Your task to perform on an android device: toggle javascript in the chrome app Image 0: 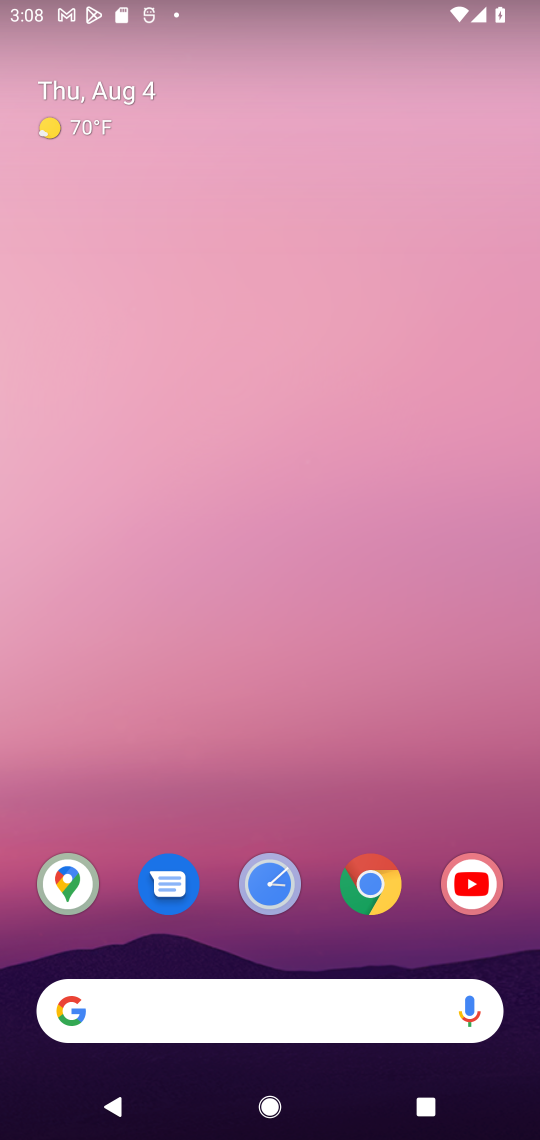
Step 0: click (360, 877)
Your task to perform on an android device: toggle javascript in the chrome app Image 1: 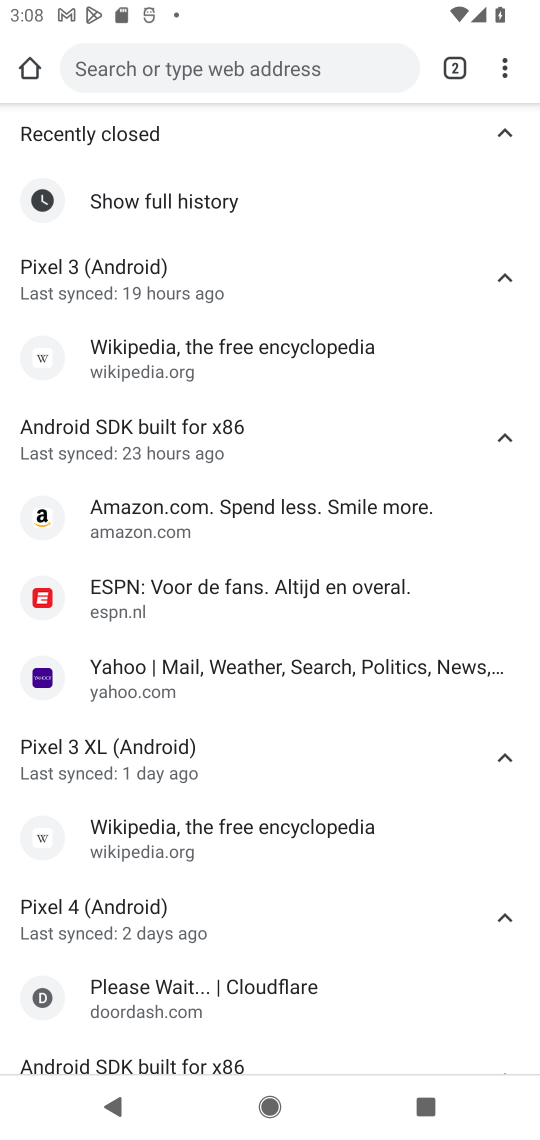
Step 1: click (499, 74)
Your task to perform on an android device: toggle javascript in the chrome app Image 2: 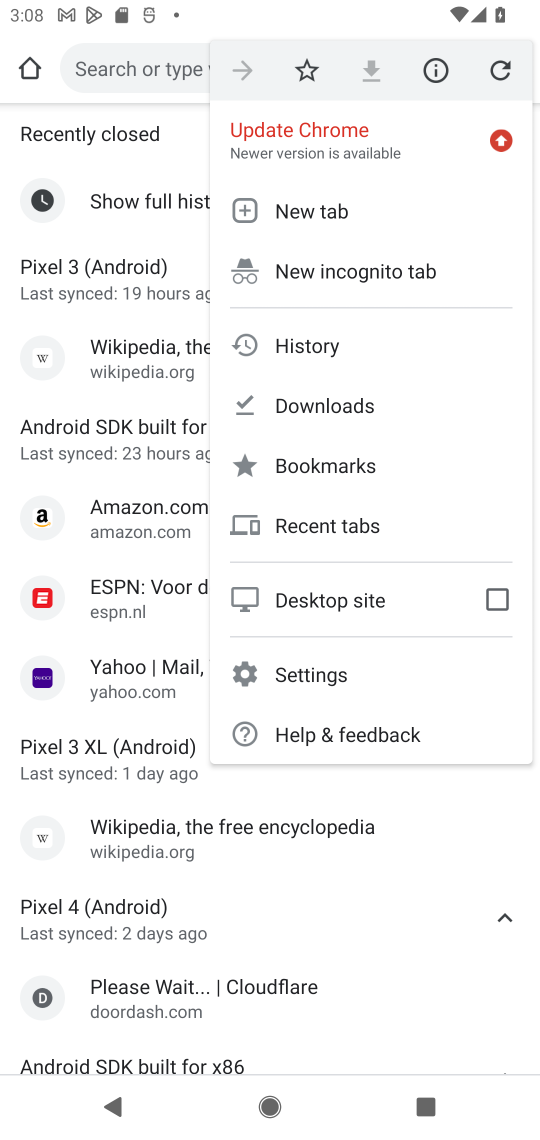
Step 2: click (316, 664)
Your task to perform on an android device: toggle javascript in the chrome app Image 3: 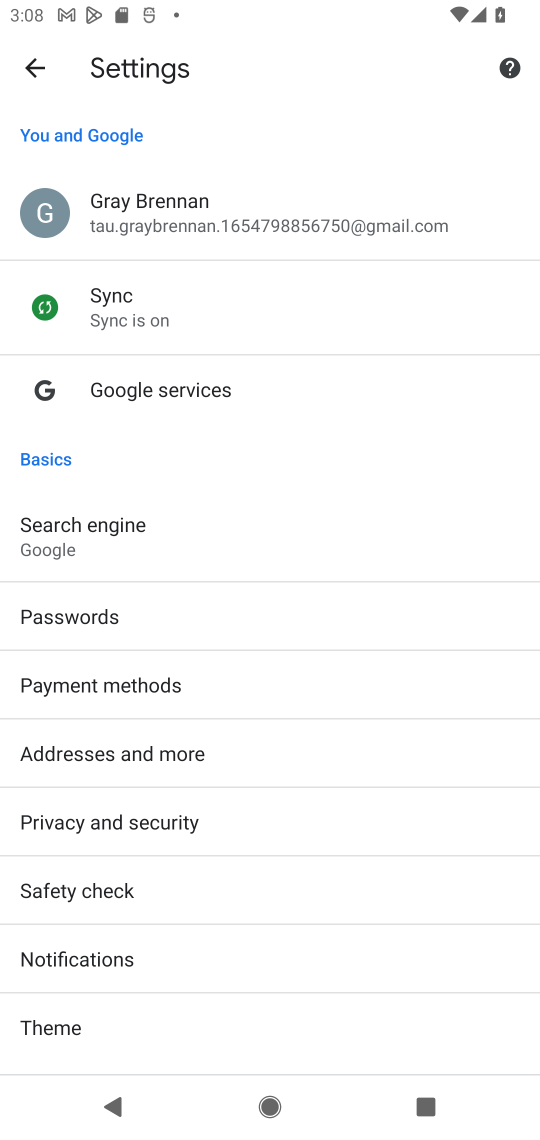
Step 3: drag from (163, 991) to (151, 406)
Your task to perform on an android device: toggle javascript in the chrome app Image 4: 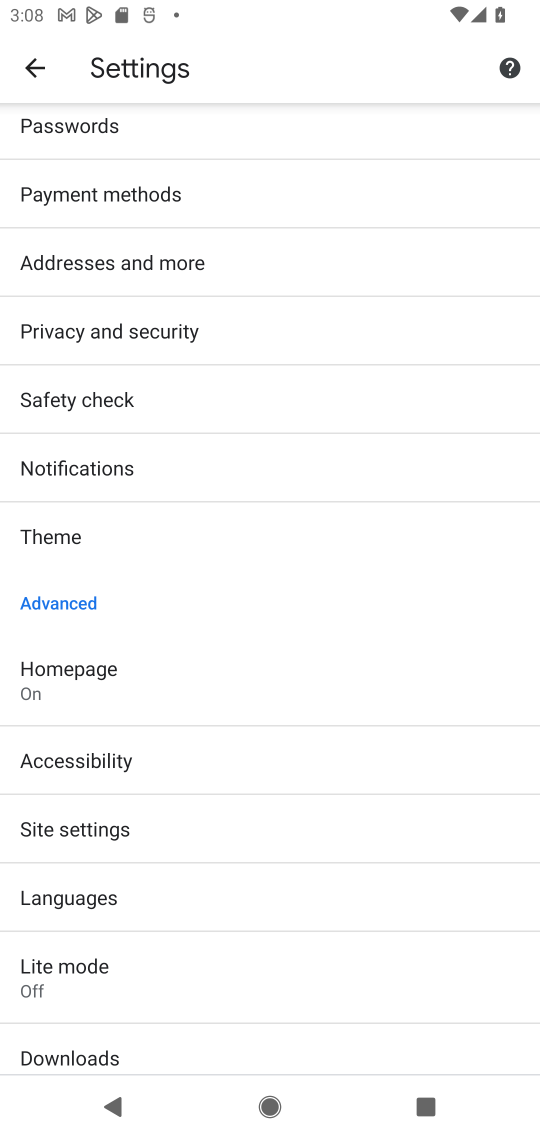
Step 4: click (106, 842)
Your task to perform on an android device: toggle javascript in the chrome app Image 5: 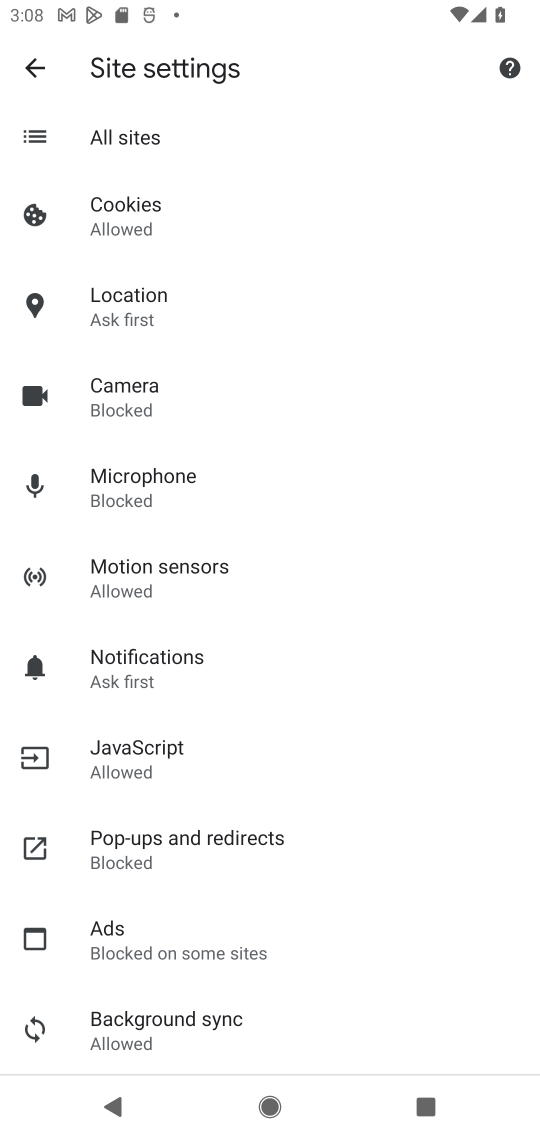
Step 5: click (104, 754)
Your task to perform on an android device: toggle javascript in the chrome app Image 6: 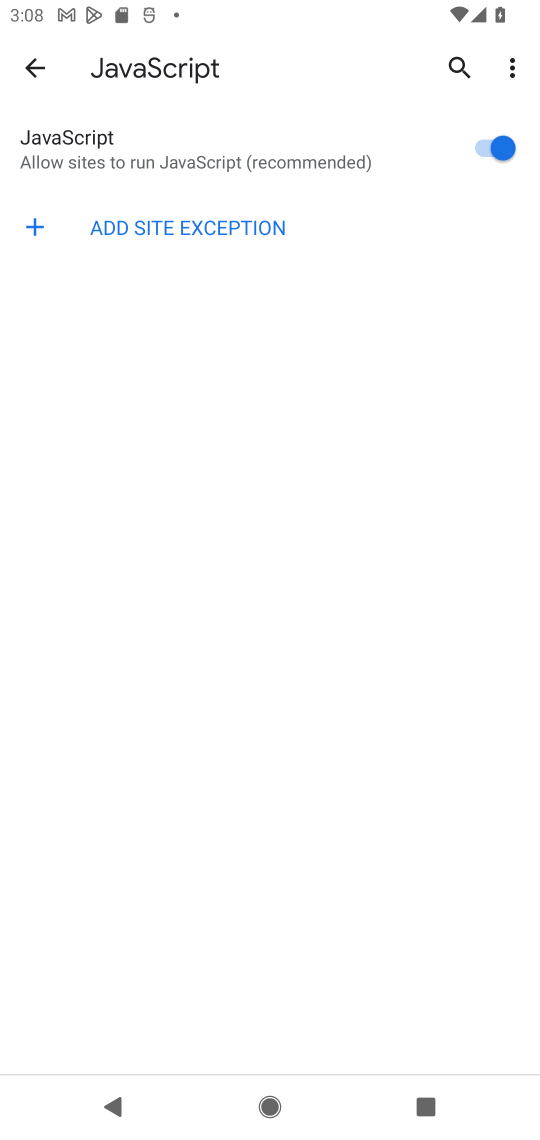
Step 6: click (474, 141)
Your task to perform on an android device: toggle javascript in the chrome app Image 7: 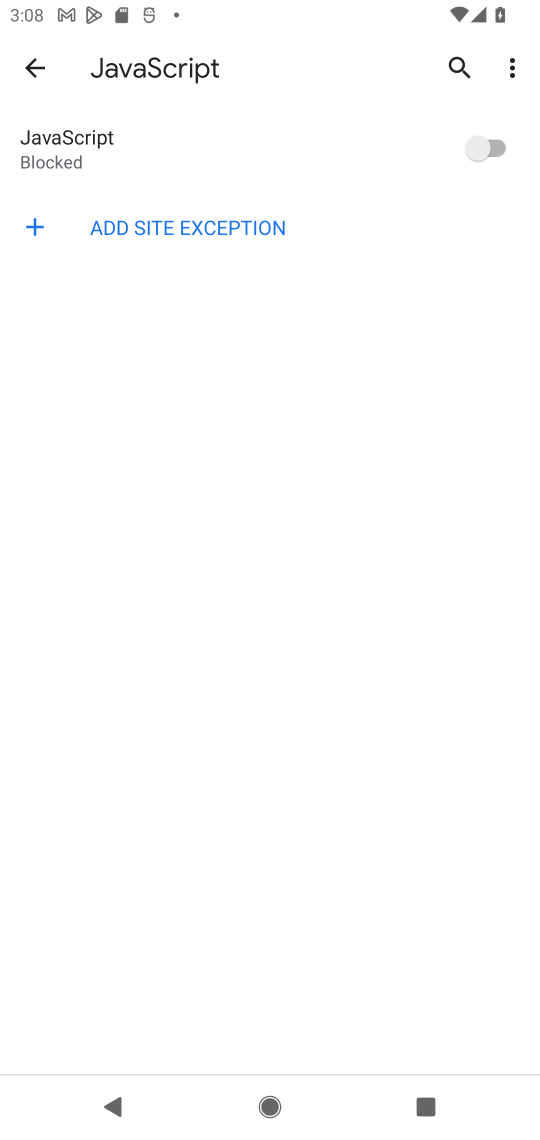
Step 7: task complete